Your task to perform on an android device: Open wifi settings Image 0: 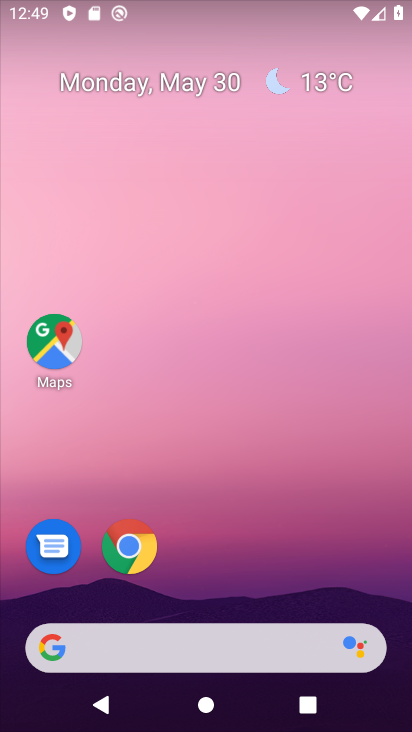
Step 0: press home button
Your task to perform on an android device: Open wifi settings Image 1: 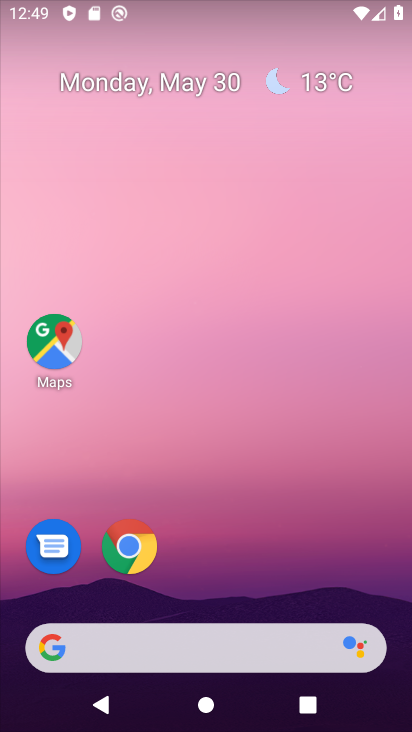
Step 1: drag from (243, 604) to (223, 21)
Your task to perform on an android device: Open wifi settings Image 2: 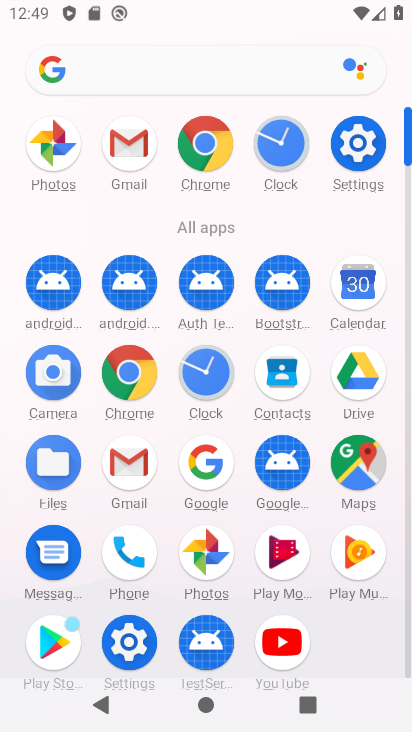
Step 2: click (377, 143)
Your task to perform on an android device: Open wifi settings Image 3: 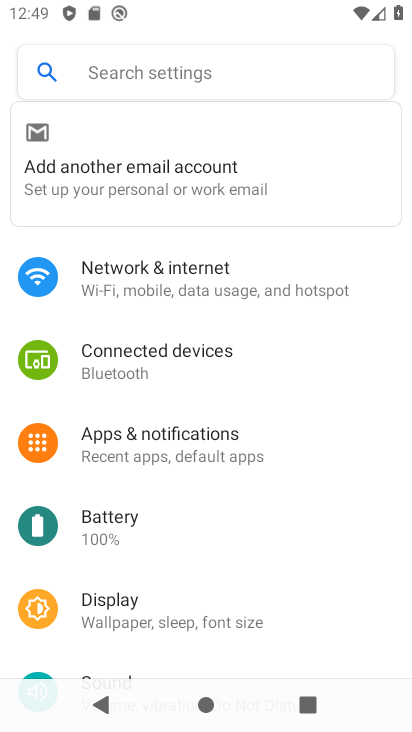
Step 3: click (126, 285)
Your task to perform on an android device: Open wifi settings Image 4: 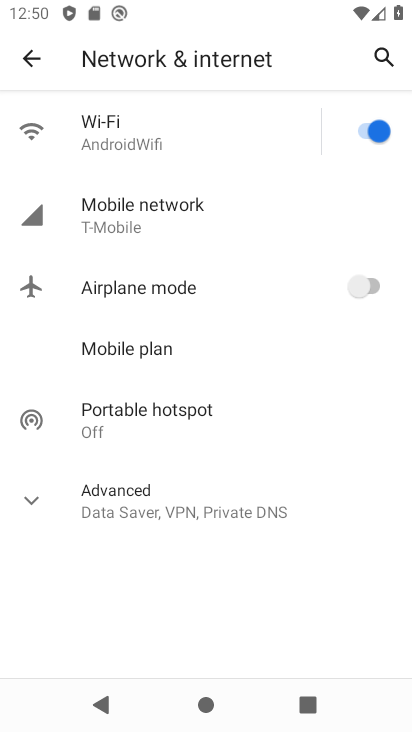
Step 4: click (104, 117)
Your task to perform on an android device: Open wifi settings Image 5: 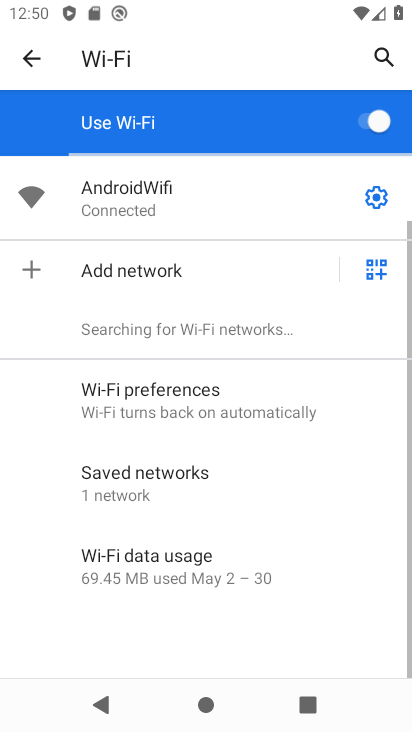
Step 5: task complete